Your task to perform on an android device: toggle location history Image 0: 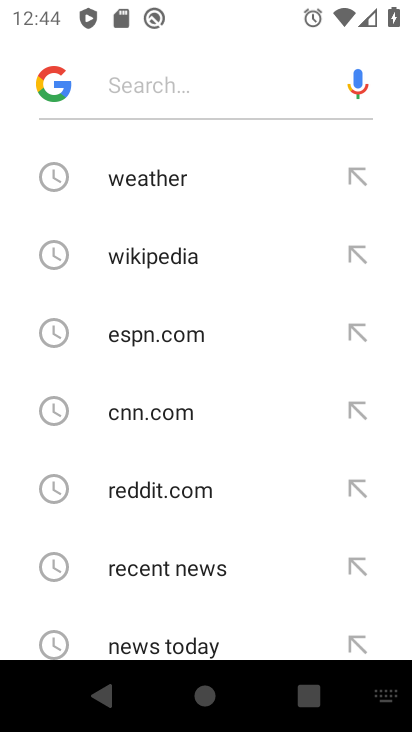
Step 0: press home button
Your task to perform on an android device: toggle location history Image 1: 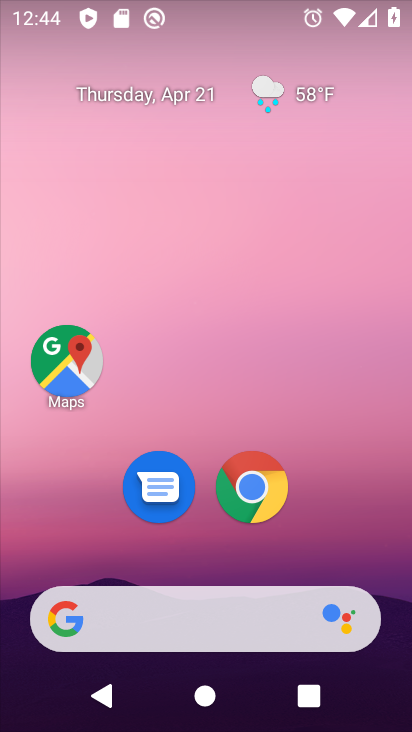
Step 1: click (70, 366)
Your task to perform on an android device: toggle location history Image 2: 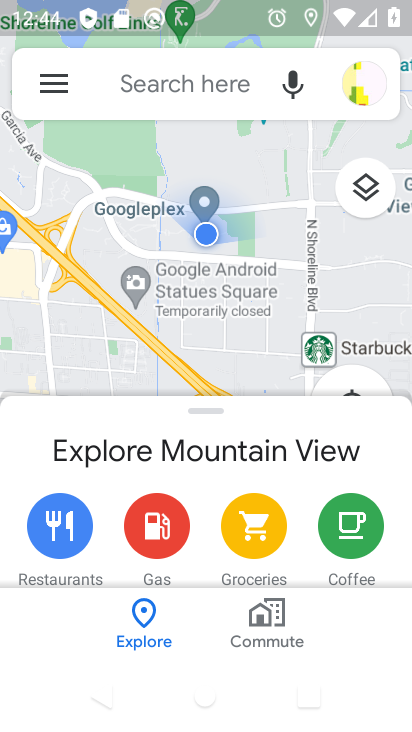
Step 2: click (48, 90)
Your task to perform on an android device: toggle location history Image 3: 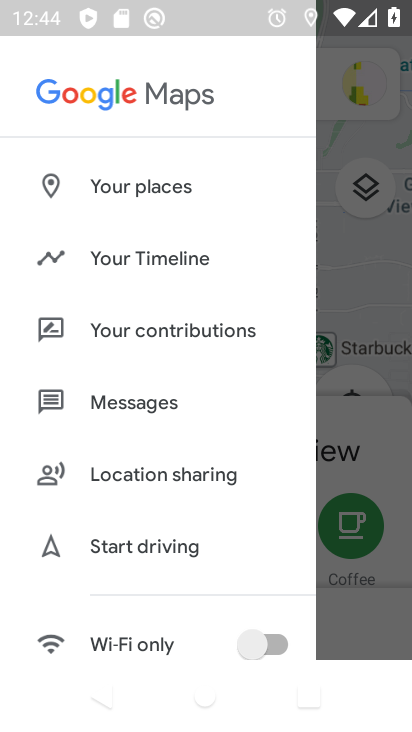
Step 3: click (102, 259)
Your task to perform on an android device: toggle location history Image 4: 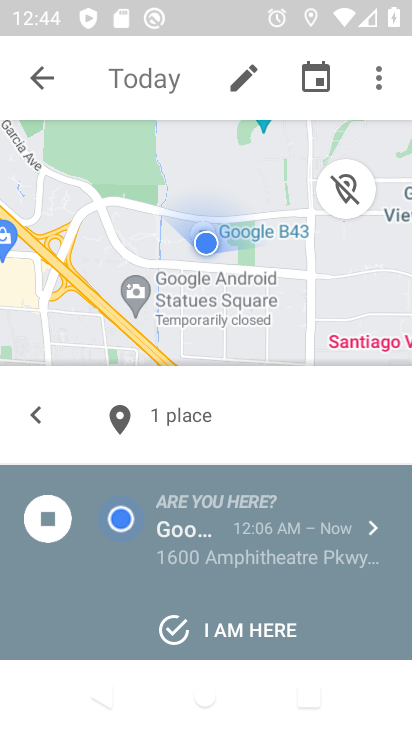
Step 4: click (381, 79)
Your task to perform on an android device: toggle location history Image 5: 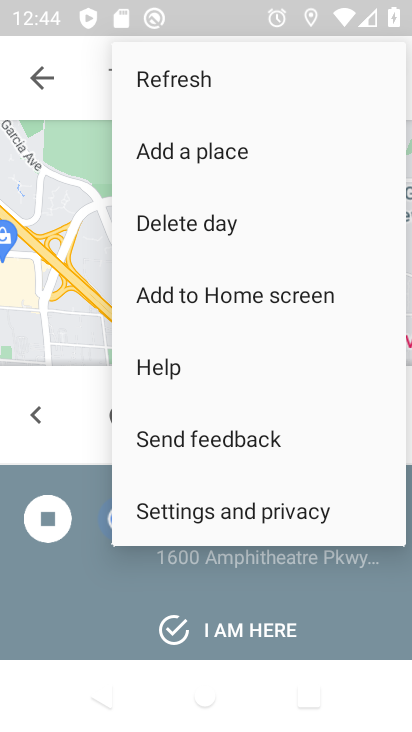
Step 5: click (238, 515)
Your task to perform on an android device: toggle location history Image 6: 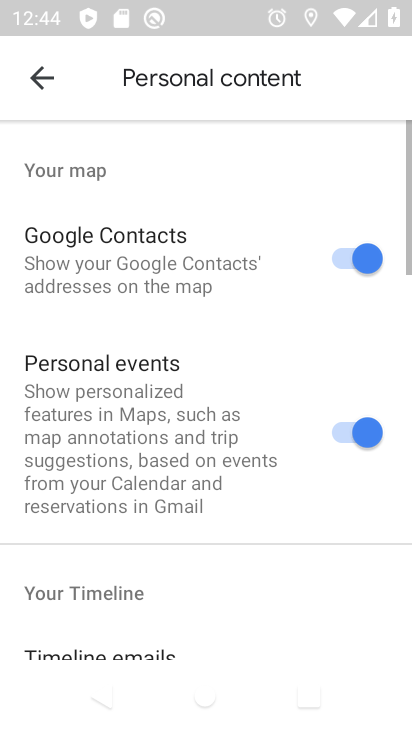
Step 6: drag from (236, 521) to (236, 103)
Your task to perform on an android device: toggle location history Image 7: 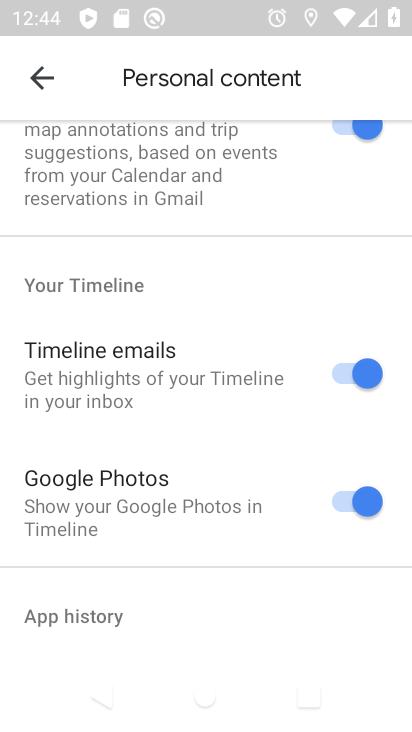
Step 7: drag from (195, 468) to (178, 88)
Your task to perform on an android device: toggle location history Image 8: 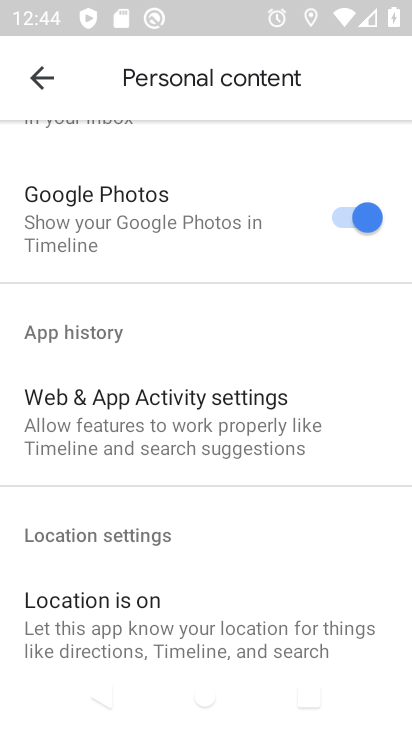
Step 8: drag from (145, 538) to (164, 156)
Your task to perform on an android device: toggle location history Image 9: 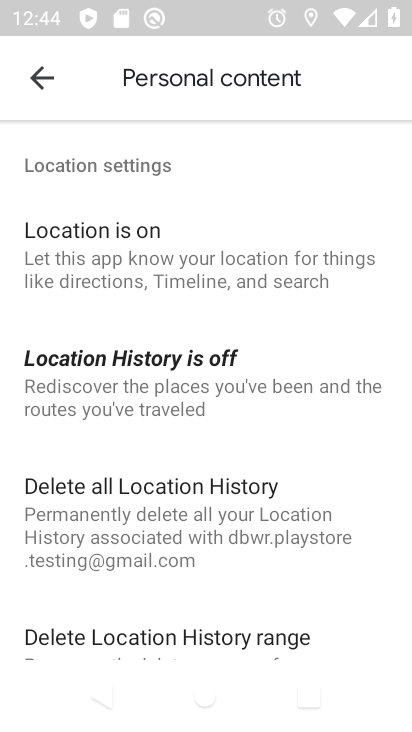
Step 9: click (101, 384)
Your task to perform on an android device: toggle location history Image 10: 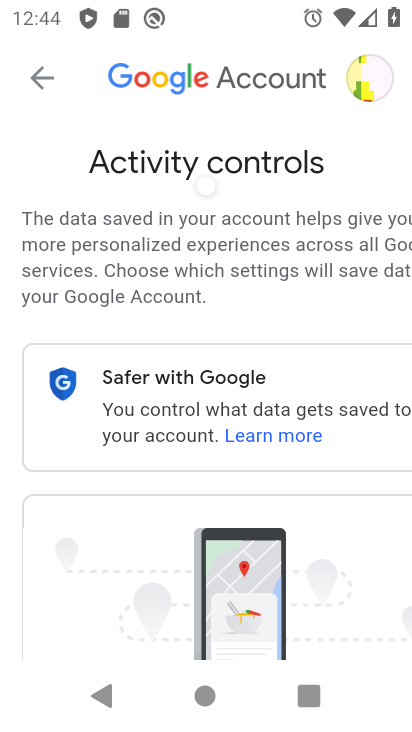
Step 10: drag from (152, 561) to (185, 121)
Your task to perform on an android device: toggle location history Image 11: 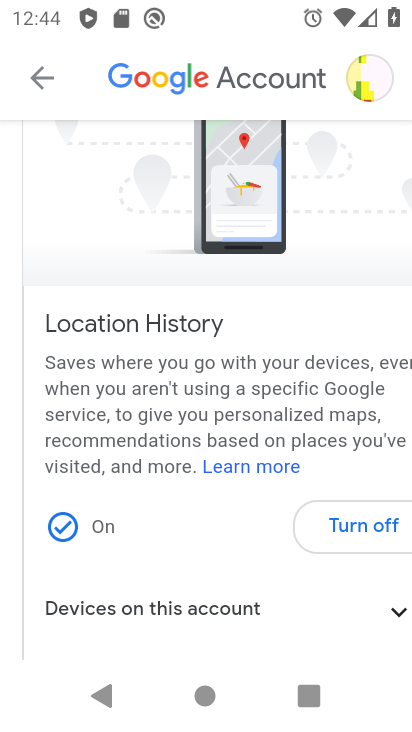
Step 11: click (359, 529)
Your task to perform on an android device: toggle location history Image 12: 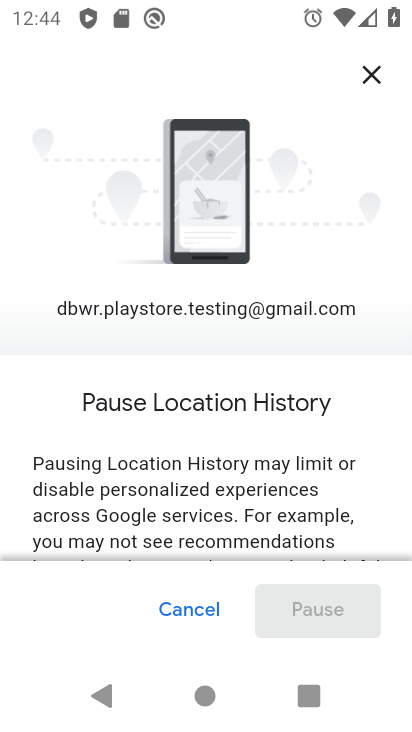
Step 12: drag from (227, 515) to (245, 47)
Your task to perform on an android device: toggle location history Image 13: 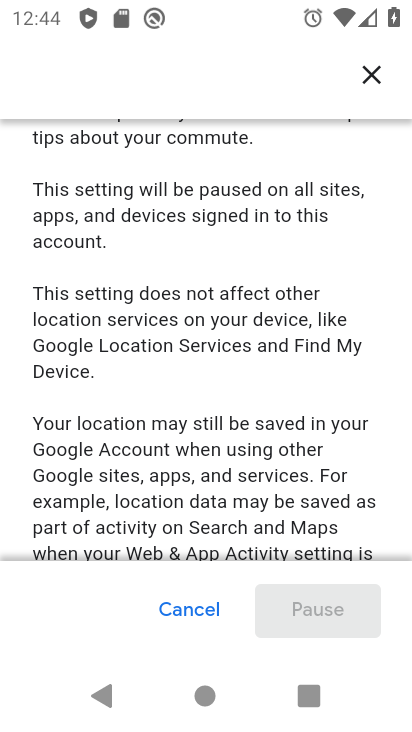
Step 13: drag from (204, 352) to (223, 43)
Your task to perform on an android device: toggle location history Image 14: 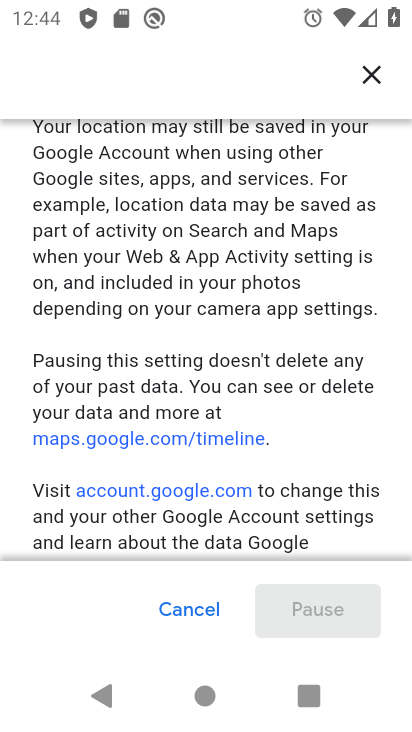
Step 14: drag from (225, 491) to (225, 116)
Your task to perform on an android device: toggle location history Image 15: 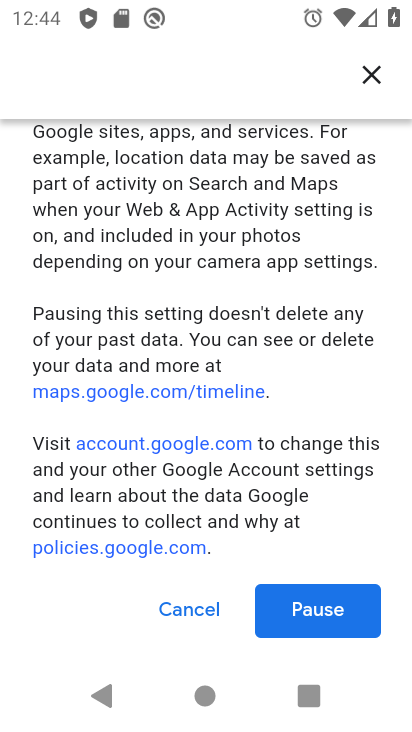
Step 15: click (313, 620)
Your task to perform on an android device: toggle location history Image 16: 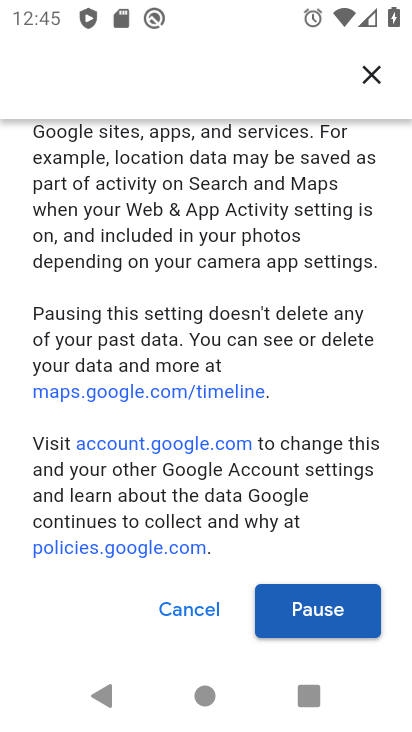
Step 16: click (317, 621)
Your task to perform on an android device: toggle location history Image 17: 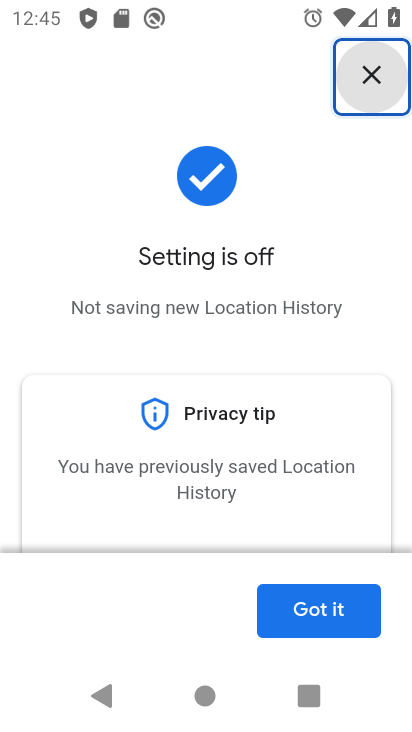
Step 17: click (317, 621)
Your task to perform on an android device: toggle location history Image 18: 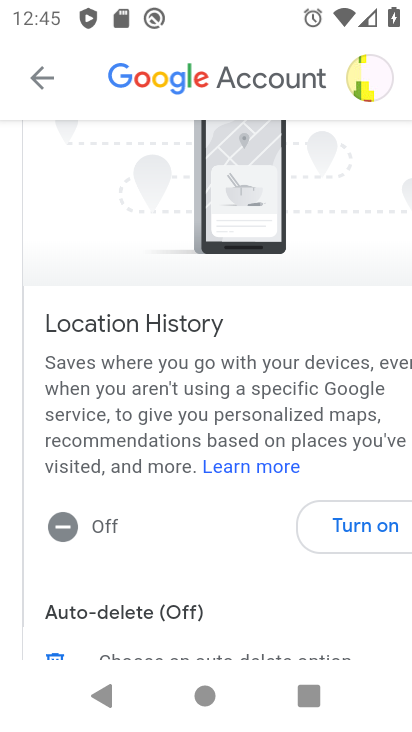
Step 18: task complete